Your task to perform on an android device: install app "Pandora - Music & Podcasts" Image 0: 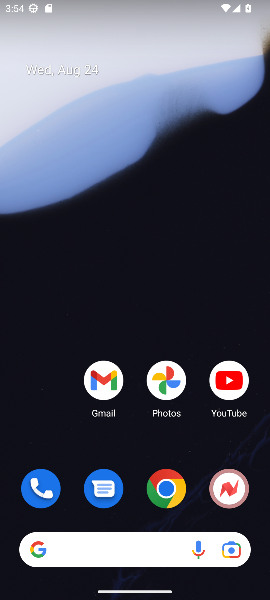
Step 0: drag from (136, 521) to (133, 55)
Your task to perform on an android device: install app "Pandora - Music & Podcasts" Image 1: 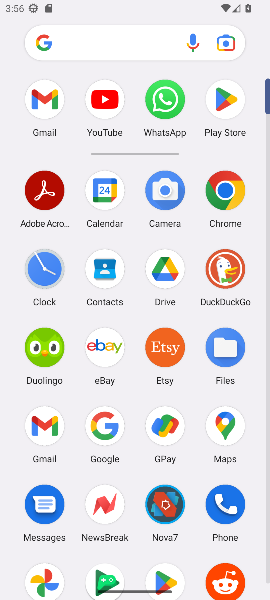
Step 1: click (220, 110)
Your task to perform on an android device: install app "Pandora - Music & Podcasts" Image 2: 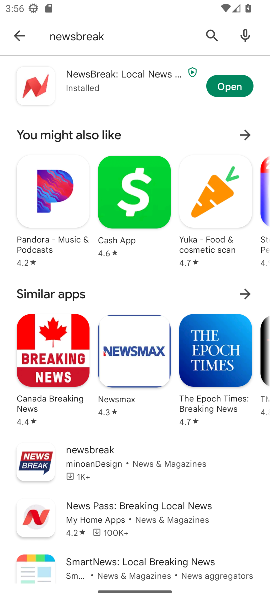
Step 2: click (210, 41)
Your task to perform on an android device: install app "Pandora - Music & Podcasts" Image 3: 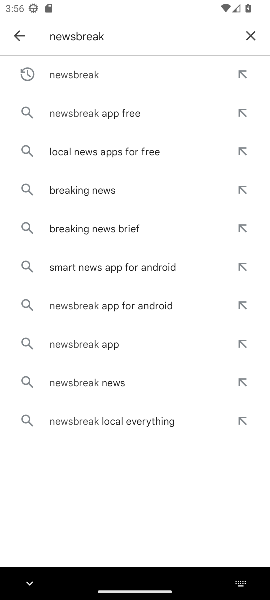
Step 3: click (255, 41)
Your task to perform on an android device: install app "Pandora - Music & Podcasts" Image 4: 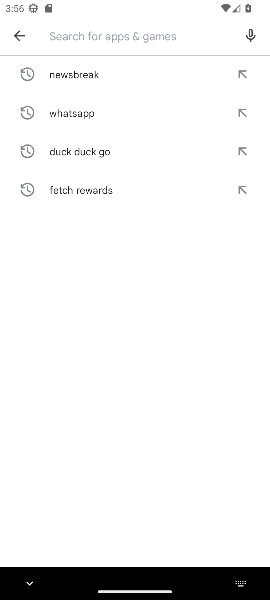
Step 4: type "pandora"
Your task to perform on an android device: install app "Pandora - Music & Podcasts" Image 5: 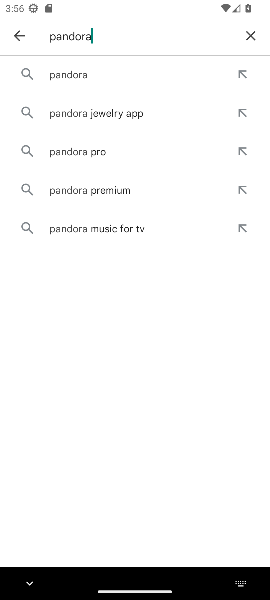
Step 5: click (117, 82)
Your task to perform on an android device: install app "Pandora - Music & Podcasts" Image 6: 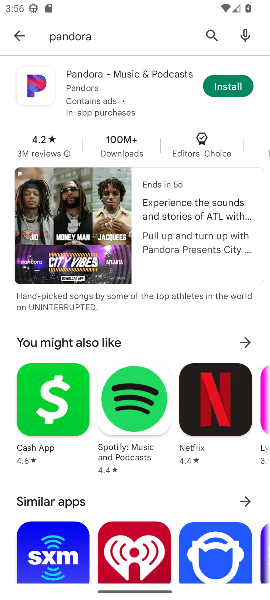
Step 6: click (241, 80)
Your task to perform on an android device: install app "Pandora - Music & Podcasts" Image 7: 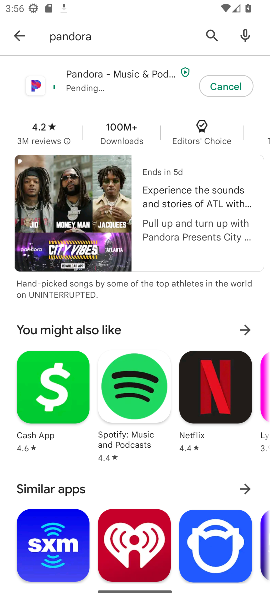
Step 7: task complete